Your task to perform on an android device: move a message to another label in the gmail app Image 0: 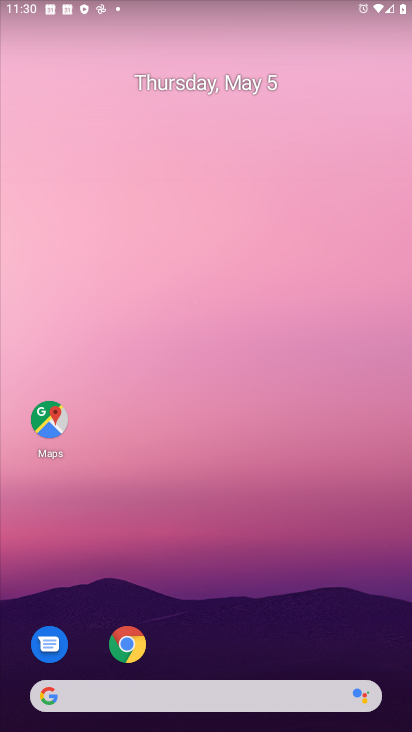
Step 0: drag from (216, 661) to (251, 266)
Your task to perform on an android device: move a message to another label in the gmail app Image 1: 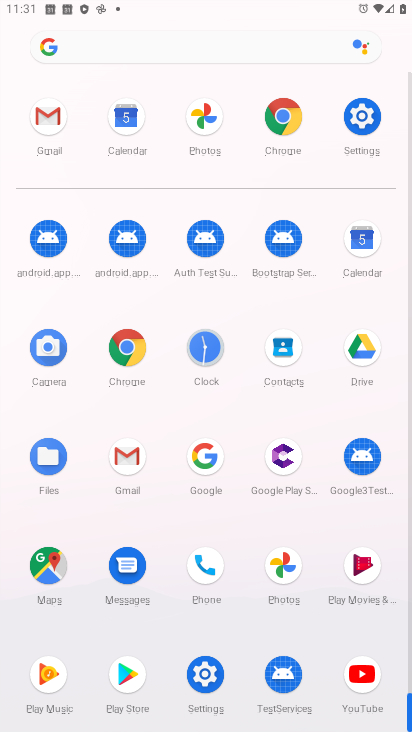
Step 1: drag from (243, 651) to (243, 295)
Your task to perform on an android device: move a message to another label in the gmail app Image 2: 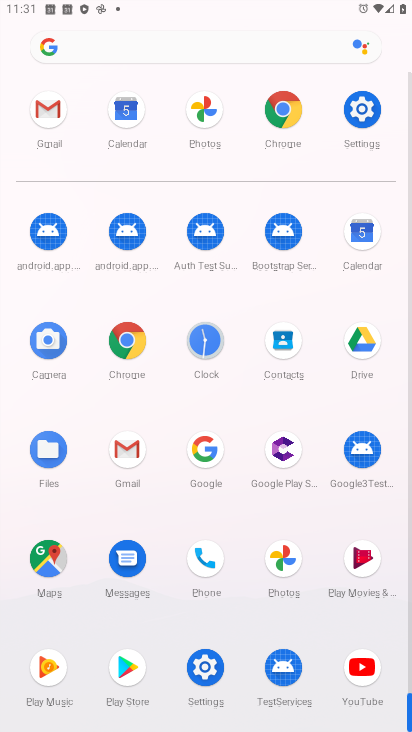
Step 2: drag from (248, 642) to (248, 336)
Your task to perform on an android device: move a message to another label in the gmail app Image 3: 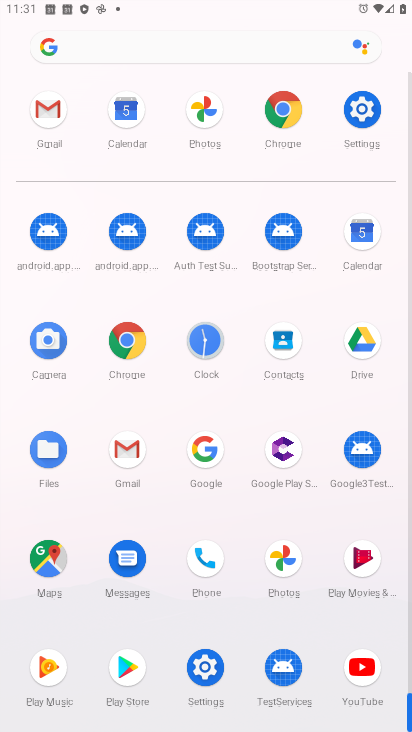
Step 3: drag from (242, 615) to (225, 470)
Your task to perform on an android device: move a message to another label in the gmail app Image 4: 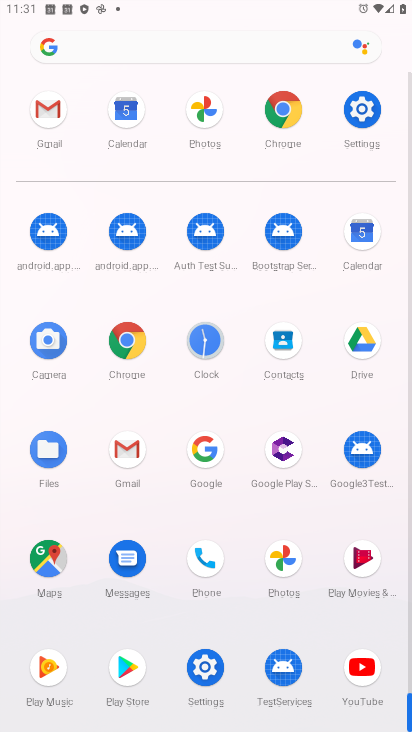
Step 4: drag from (256, 589) to (275, 382)
Your task to perform on an android device: move a message to another label in the gmail app Image 5: 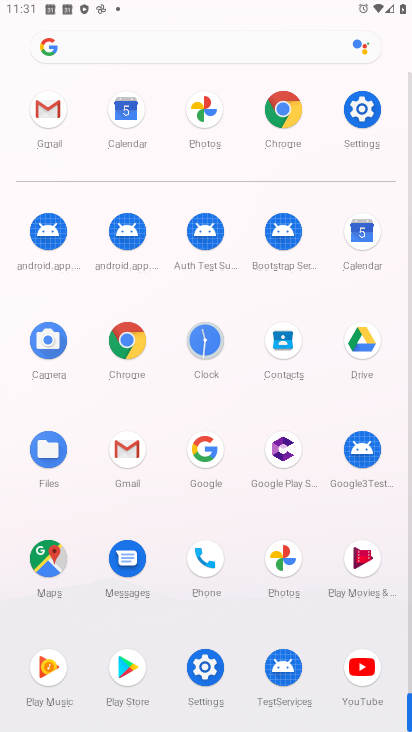
Step 5: drag from (234, 645) to (240, 392)
Your task to perform on an android device: move a message to another label in the gmail app Image 6: 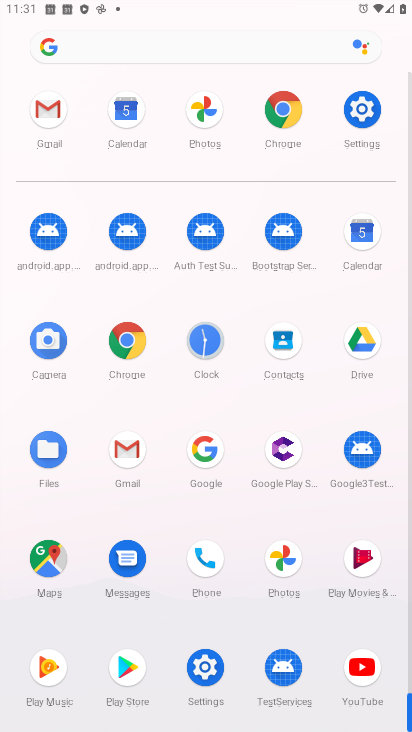
Step 6: drag from (265, 628) to (231, 381)
Your task to perform on an android device: move a message to another label in the gmail app Image 7: 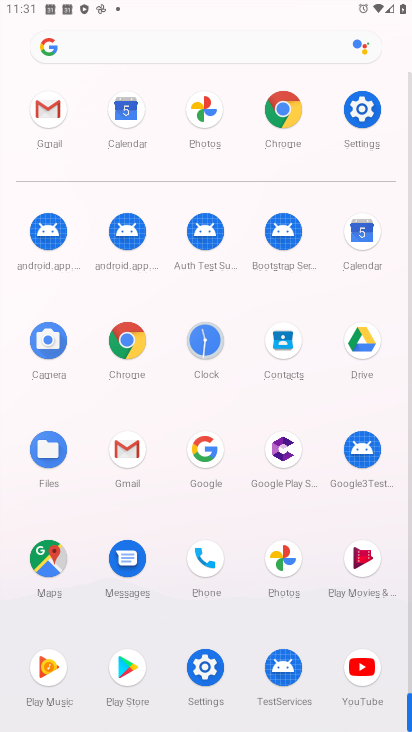
Step 7: drag from (250, 623) to (208, 171)
Your task to perform on an android device: move a message to another label in the gmail app Image 8: 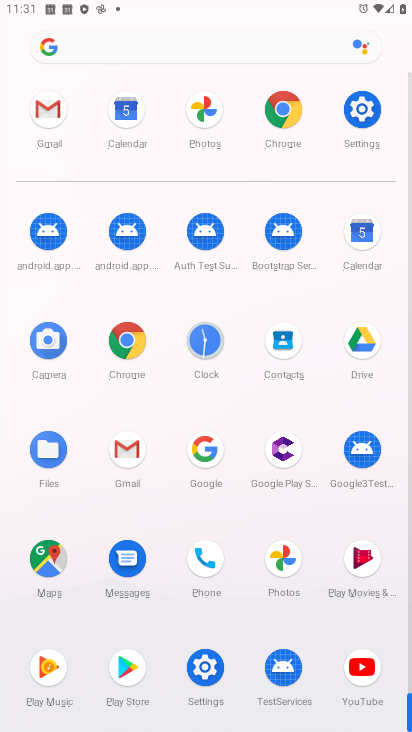
Step 8: drag from (227, 623) to (202, 441)
Your task to perform on an android device: move a message to another label in the gmail app Image 9: 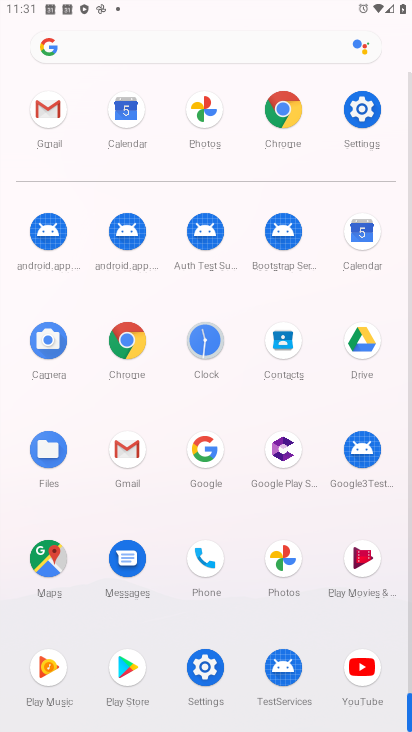
Step 9: drag from (253, 596) to (242, 386)
Your task to perform on an android device: move a message to another label in the gmail app Image 10: 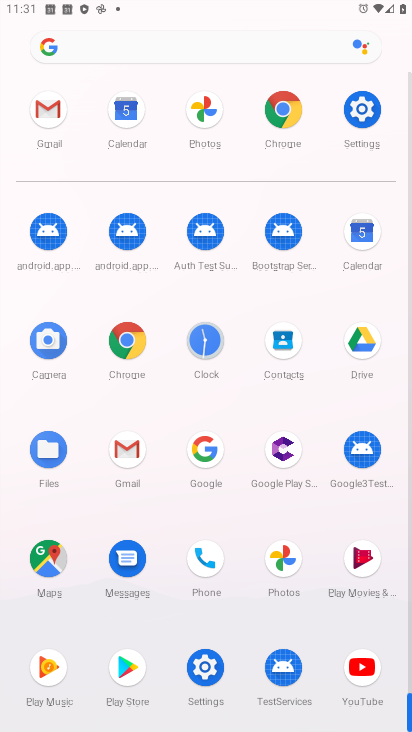
Step 10: drag from (266, 644) to (239, 342)
Your task to perform on an android device: move a message to another label in the gmail app Image 11: 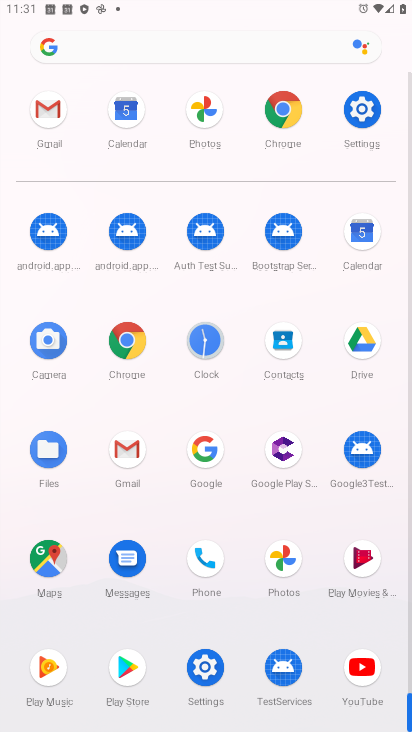
Step 11: click (134, 439)
Your task to perform on an android device: move a message to another label in the gmail app Image 12: 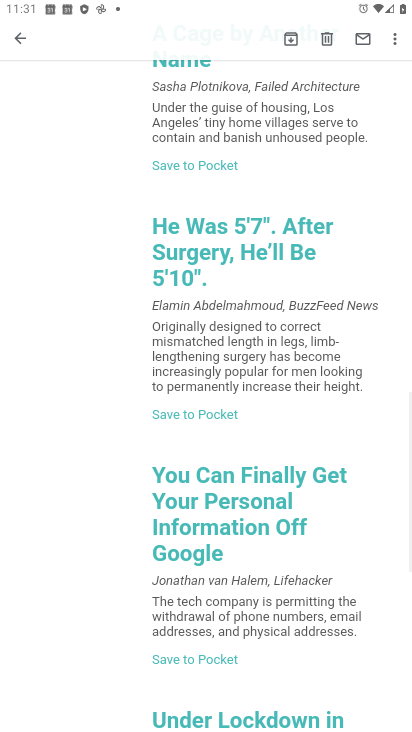
Step 12: drag from (279, 612) to (280, 286)
Your task to perform on an android device: move a message to another label in the gmail app Image 13: 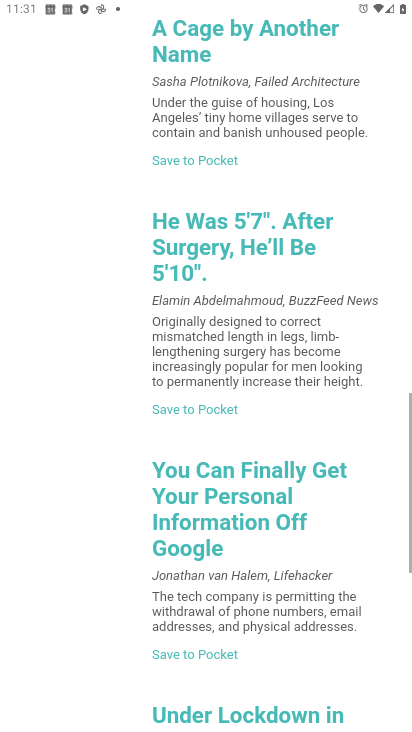
Step 13: drag from (279, 261) to (322, 725)
Your task to perform on an android device: move a message to another label in the gmail app Image 14: 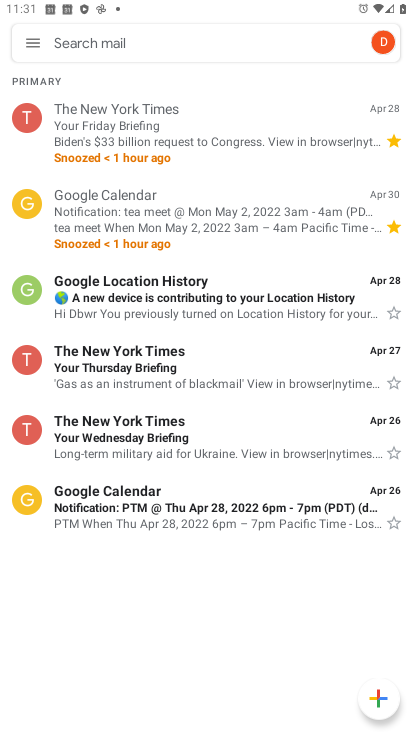
Step 14: click (150, 298)
Your task to perform on an android device: move a message to another label in the gmail app Image 15: 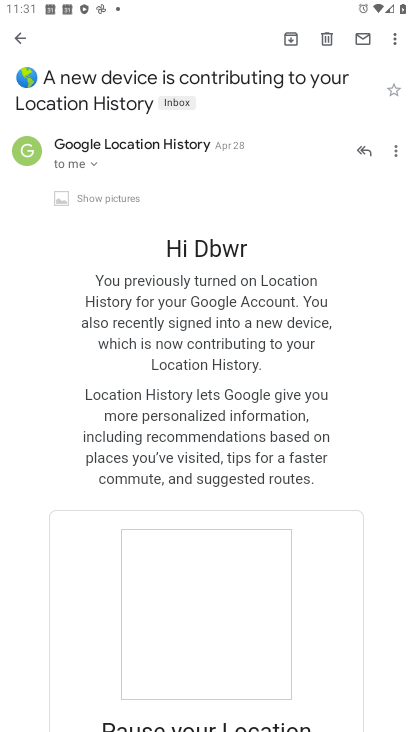
Step 15: click (390, 43)
Your task to perform on an android device: move a message to another label in the gmail app Image 16: 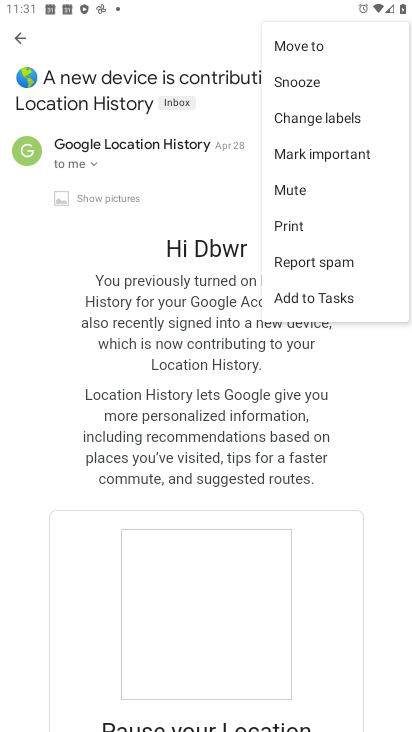
Step 16: click (333, 119)
Your task to perform on an android device: move a message to another label in the gmail app Image 17: 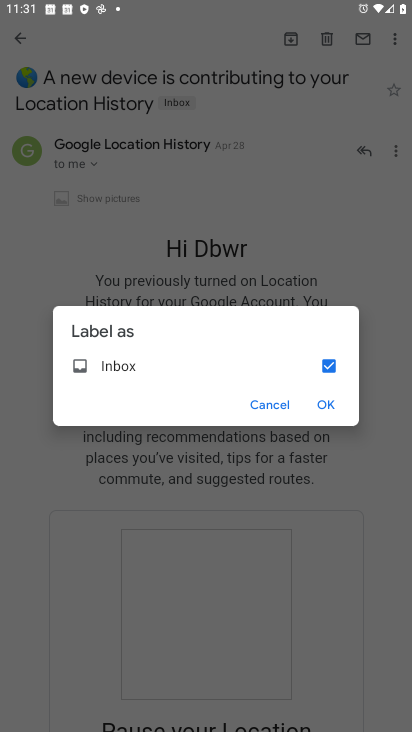
Step 17: click (266, 395)
Your task to perform on an android device: move a message to another label in the gmail app Image 18: 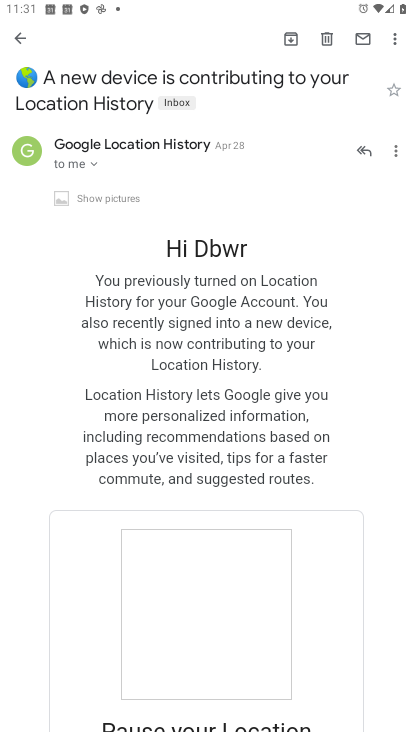
Step 18: click (392, 84)
Your task to perform on an android device: move a message to another label in the gmail app Image 19: 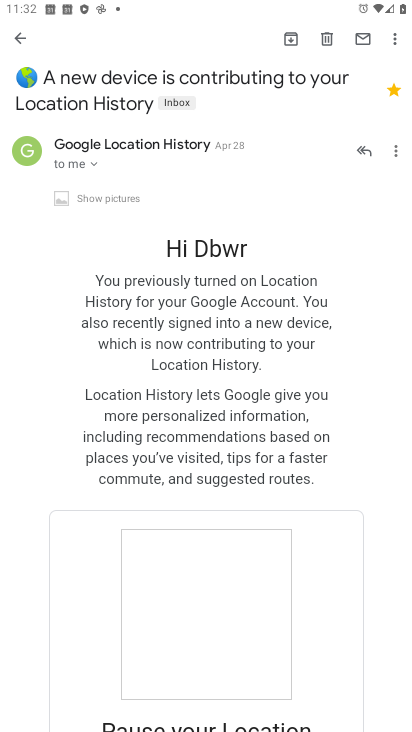
Step 19: task complete